Your task to perform on an android device: open app "Etsy: Buy & Sell Unique Items" (install if not already installed), go to login, and select forgot password Image 0: 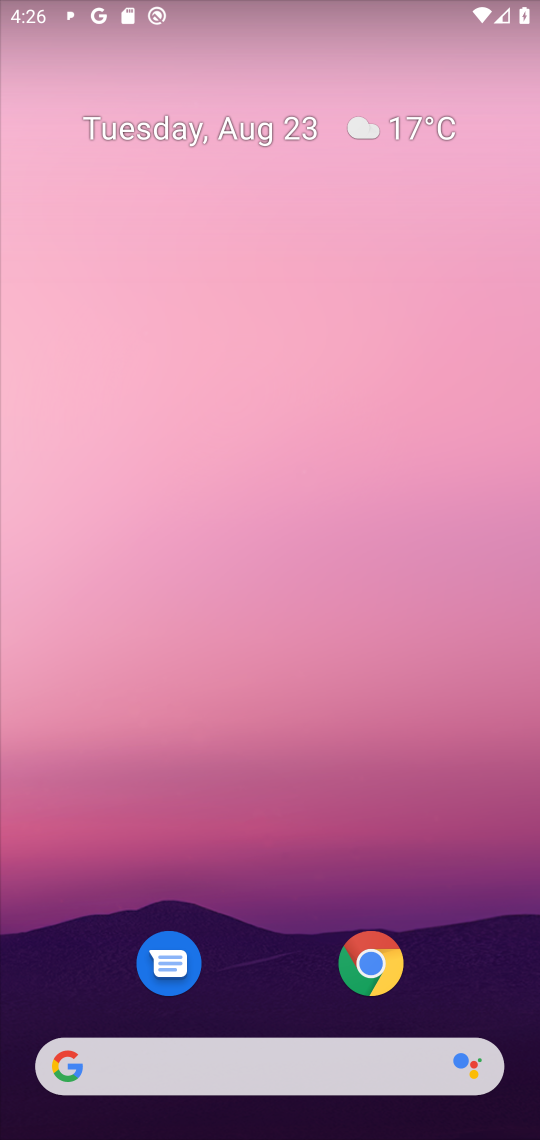
Step 0: press home button
Your task to perform on an android device: open app "Etsy: Buy & Sell Unique Items" (install if not already installed), go to login, and select forgot password Image 1: 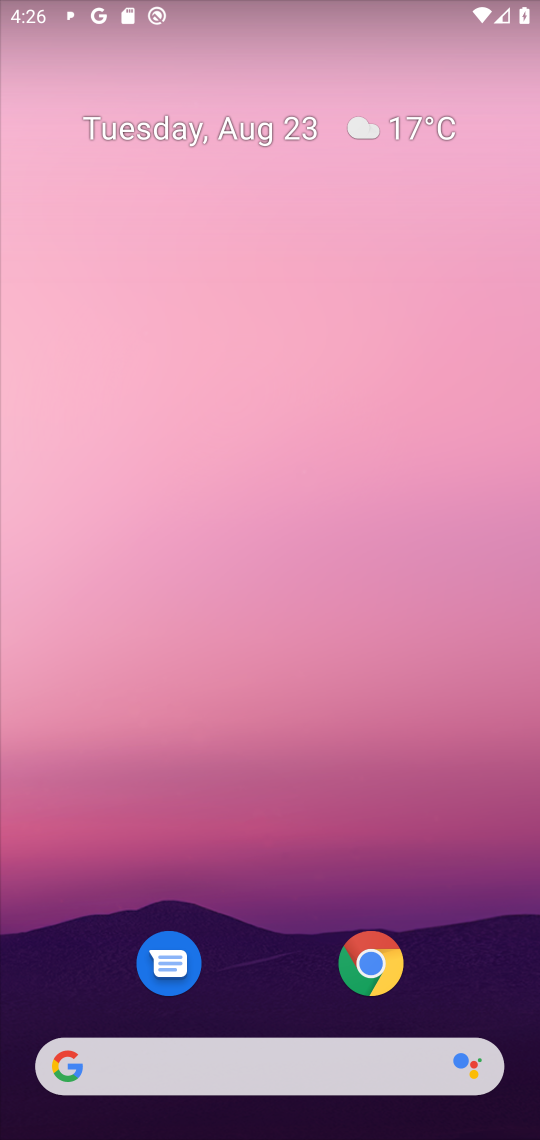
Step 1: drag from (273, 994) to (220, 116)
Your task to perform on an android device: open app "Etsy: Buy & Sell Unique Items" (install if not already installed), go to login, and select forgot password Image 2: 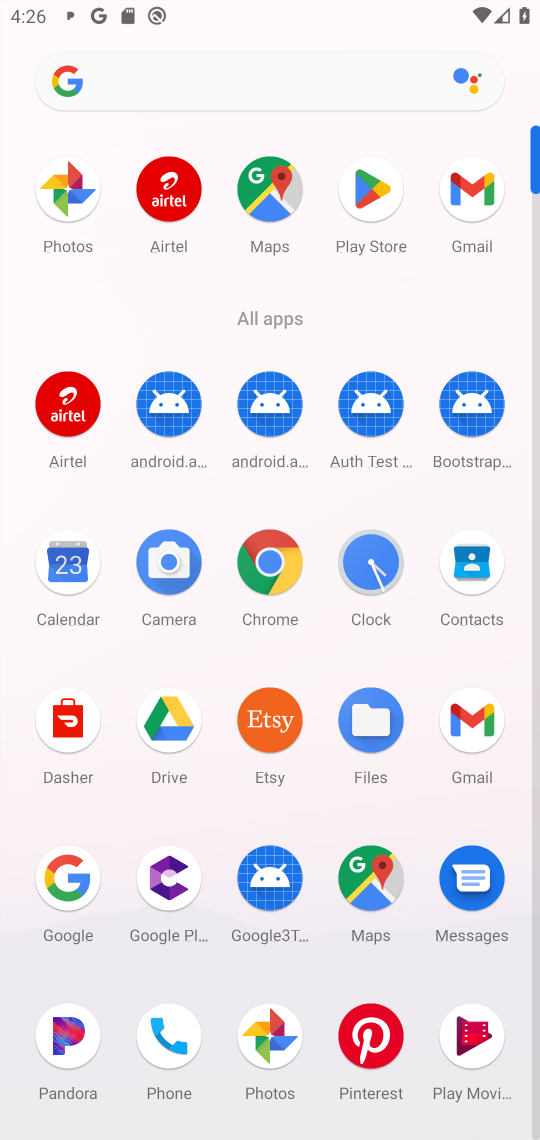
Step 2: click (361, 180)
Your task to perform on an android device: open app "Etsy: Buy & Sell Unique Items" (install if not already installed), go to login, and select forgot password Image 3: 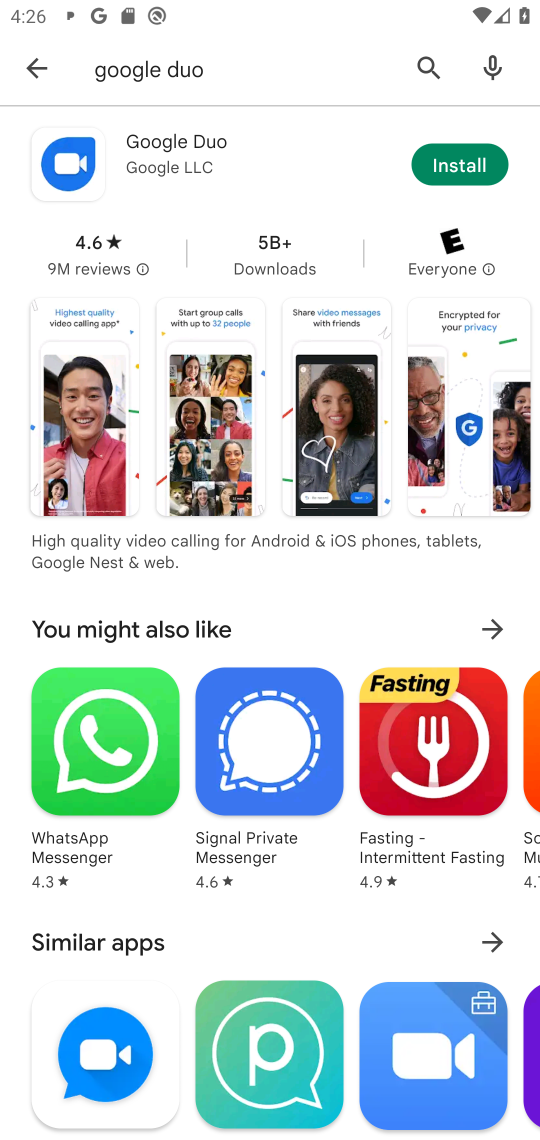
Step 3: click (418, 68)
Your task to perform on an android device: open app "Etsy: Buy & Sell Unique Items" (install if not already installed), go to login, and select forgot password Image 4: 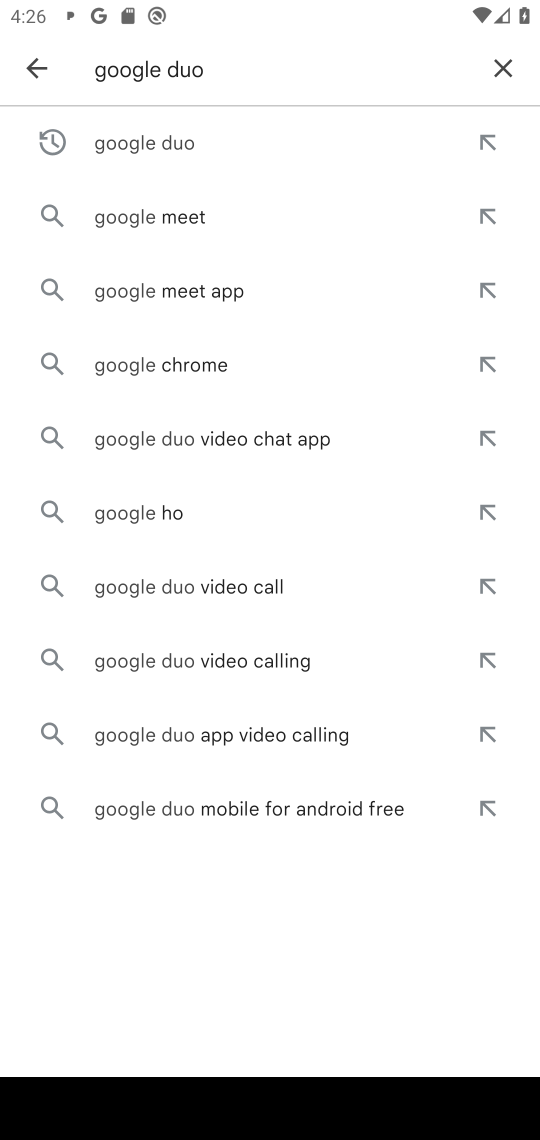
Step 4: click (500, 68)
Your task to perform on an android device: open app "Etsy: Buy & Sell Unique Items" (install if not already installed), go to login, and select forgot password Image 5: 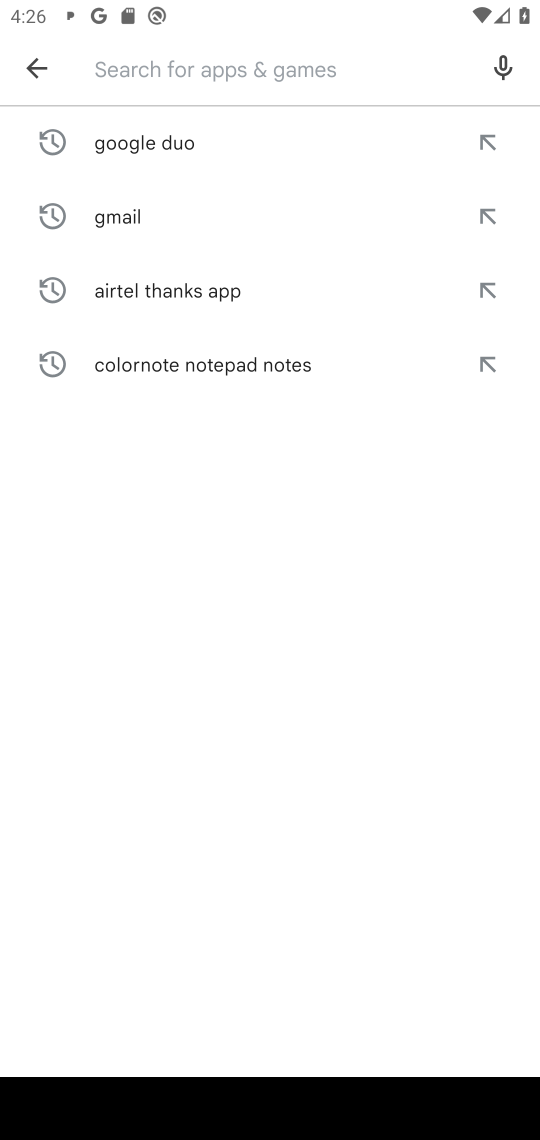
Step 5: type "Etsy: Buy & Sell Unique Items"
Your task to perform on an android device: open app "Etsy: Buy & Sell Unique Items" (install if not already installed), go to login, and select forgot password Image 6: 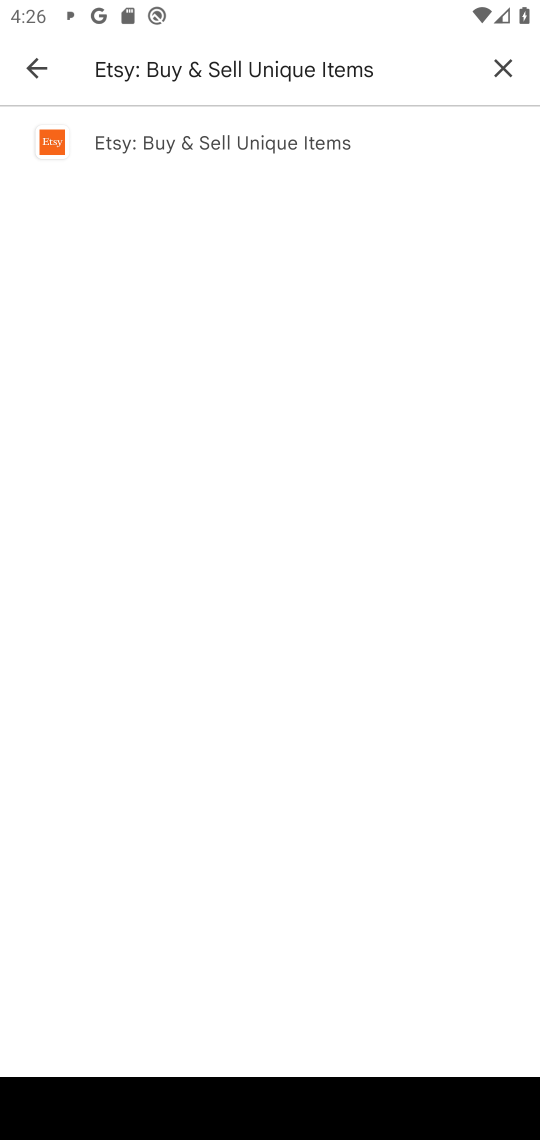
Step 6: click (137, 135)
Your task to perform on an android device: open app "Etsy: Buy & Sell Unique Items" (install if not already installed), go to login, and select forgot password Image 7: 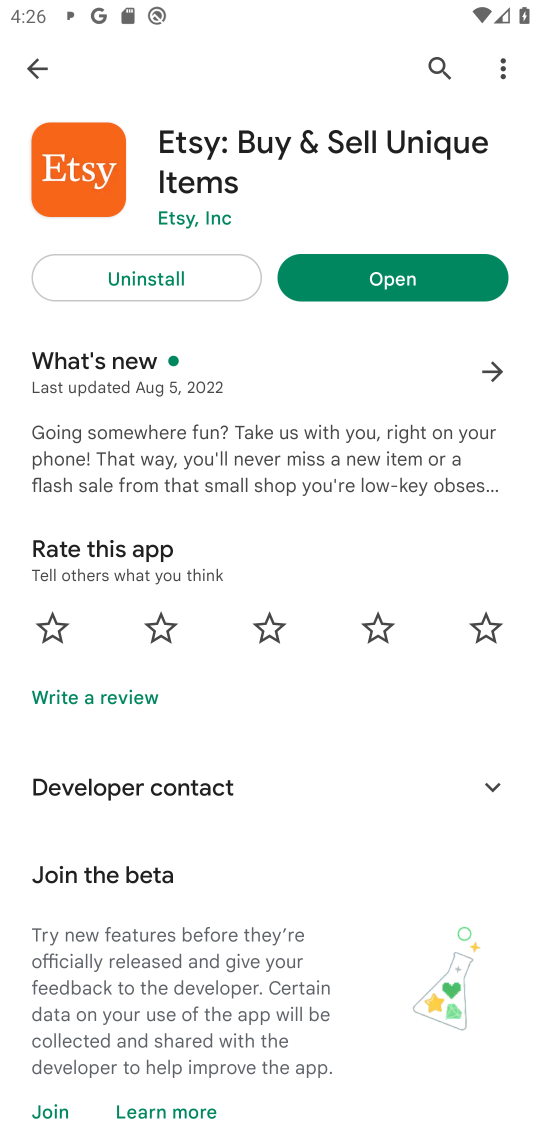
Step 7: click (413, 286)
Your task to perform on an android device: open app "Etsy: Buy & Sell Unique Items" (install if not already installed), go to login, and select forgot password Image 8: 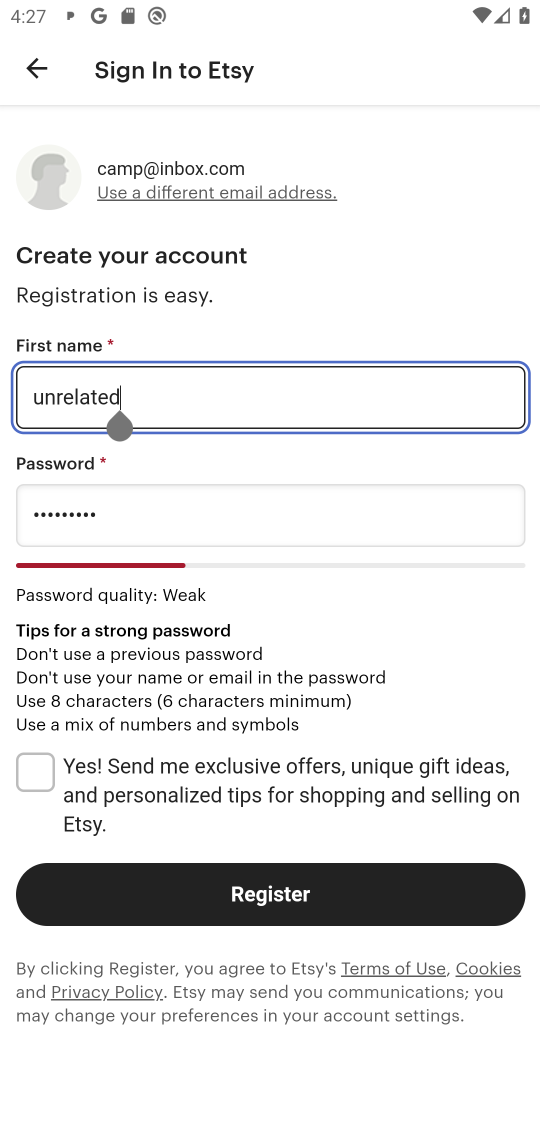
Step 8: task complete